Your task to perform on an android device: Add usb-a to usb-b to the cart on ebay, then select checkout. Image 0: 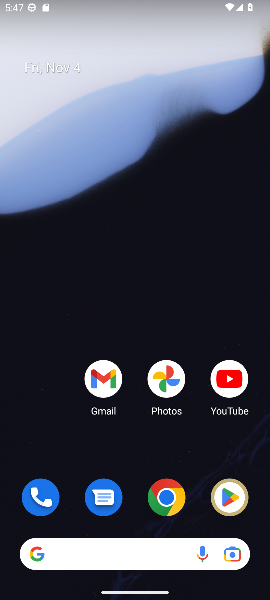
Step 0: click (164, 497)
Your task to perform on an android device: Add usb-a to usb-b to the cart on ebay, then select checkout. Image 1: 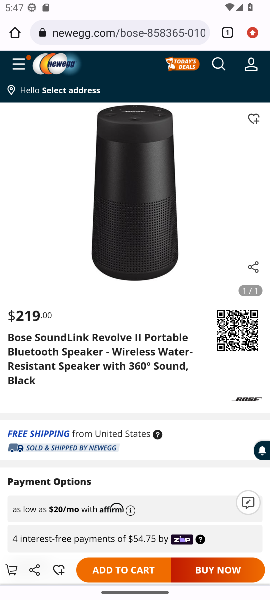
Step 1: click (91, 39)
Your task to perform on an android device: Add usb-a to usb-b to the cart on ebay, then select checkout. Image 2: 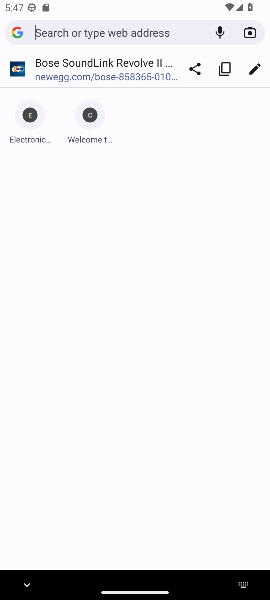
Step 2: type "ebay.com"
Your task to perform on an android device: Add usb-a to usb-b to the cart on ebay, then select checkout. Image 3: 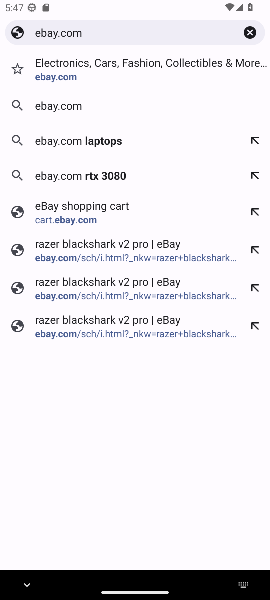
Step 3: click (50, 78)
Your task to perform on an android device: Add usb-a to usb-b to the cart on ebay, then select checkout. Image 4: 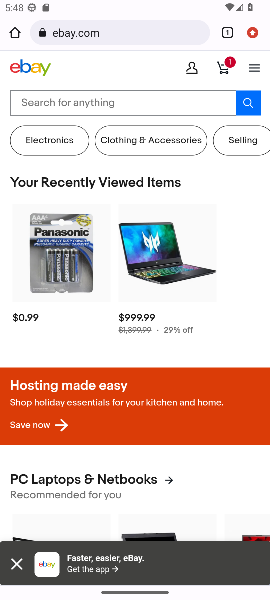
Step 4: click (54, 105)
Your task to perform on an android device: Add usb-a to usb-b to the cart on ebay, then select checkout. Image 5: 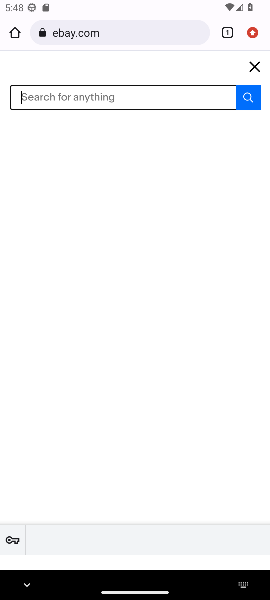
Step 5: type "bose soundlink mini"
Your task to perform on an android device: Add usb-a to usb-b to the cart on ebay, then select checkout. Image 6: 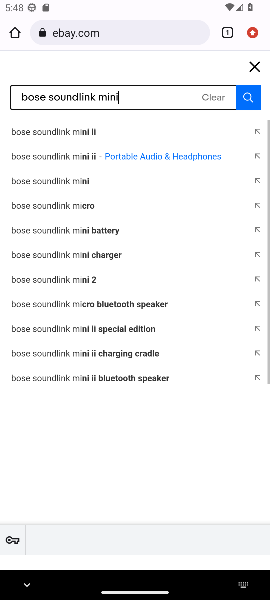
Step 6: click (212, 96)
Your task to perform on an android device: Add usb-a to usb-b to the cart on ebay, then select checkout. Image 7: 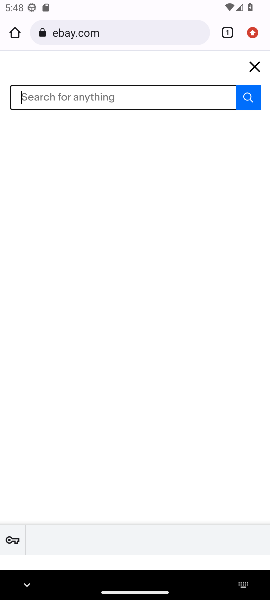
Step 7: click (68, 87)
Your task to perform on an android device: Add usb-a to usb-b to the cart on ebay, then select checkout. Image 8: 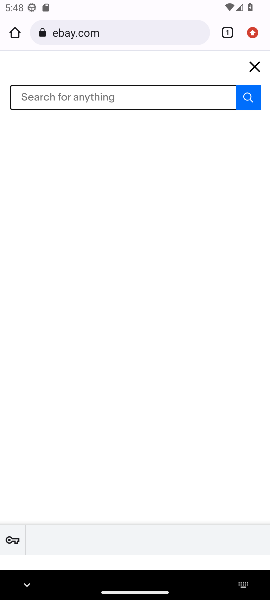
Step 8: type " usb-a to usb-b "
Your task to perform on an android device: Add usb-a to usb-b to the cart on ebay, then select checkout. Image 9: 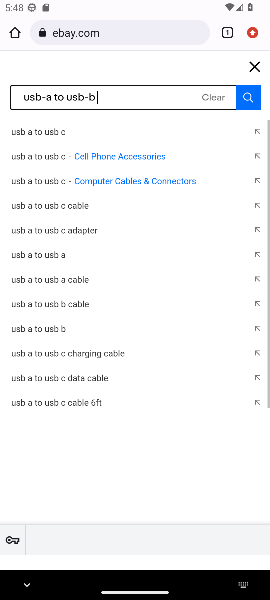
Step 9: click (251, 98)
Your task to perform on an android device: Add usb-a to usb-b to the cart on ebay, then select checkout. Image 10: 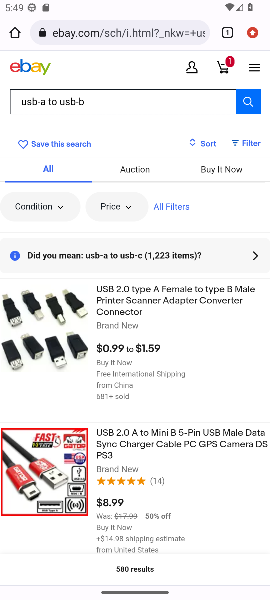
Step 10: click (81, 345)
Your task to perform on an android device: Add usb-a to usb-b to the cart on ebay, then select checkout. Image 11: 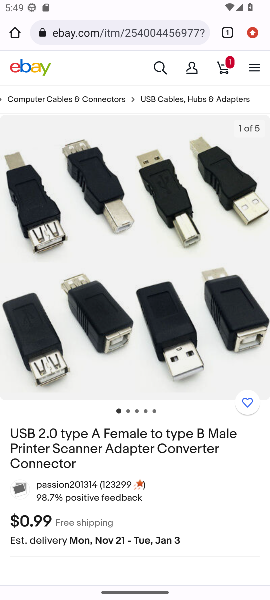
Step 11: drag from (113, 444) to (114, 220)
Your task to perform on an android device: Add usb-a to usb-b to the cart on ebay, then select checkout. Image 12: 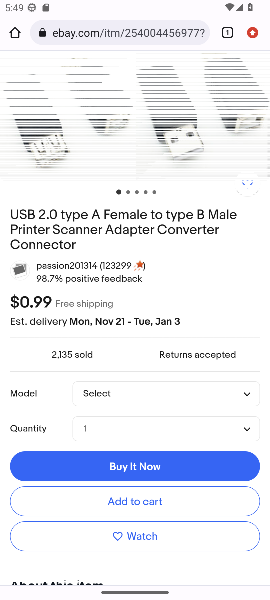
Step 12: click (126, 499)
Your task to perform on an android device: Add usb-a to usb-b to the cart on ebay, then select checkout. Image 13: 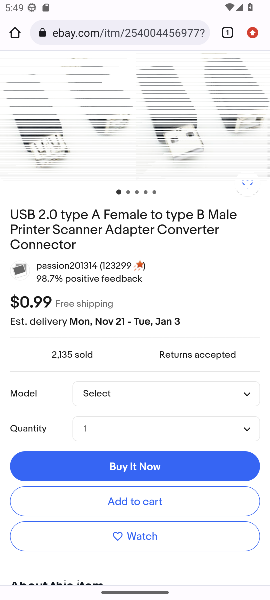
Step 13: click (128, 503)
Your task to perform on an android device: Add usb-a to usb-b to the cart on ebay, then select checkout. Image 14: 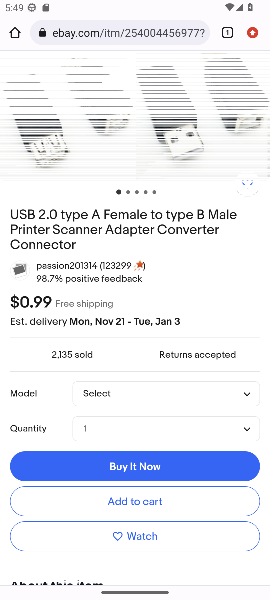
Step 14: click (132, 503)
Your task to perform on an android device: Add usb-a to usb-b to the cart on ebay, then select checkout. Image 15: 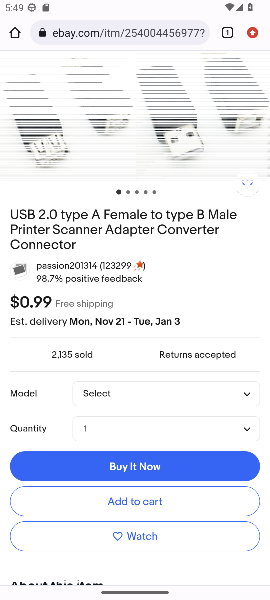
Step 15: drag from (173, 257) to (228, 83)
Your task to perform on an android device: Add usb-a to usb-b to the cart on ebay, then select checkout. Image 16: 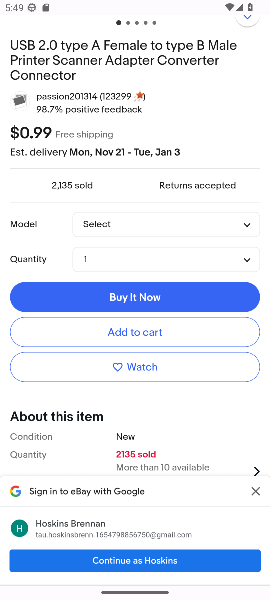
Step 16: click (107, 333)
Your task to perform on an android device: Add usb-a to usb-b to the cart on ebay, then select checkout. Image 17: 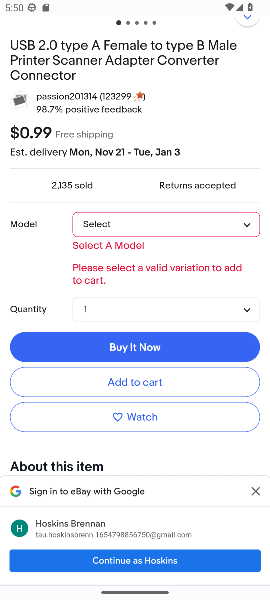
Step 17: click (243, 227)
Your task to perform on an android device: Add usb-a to usb-b to the cart on ebay, then select checkout. Image 18: 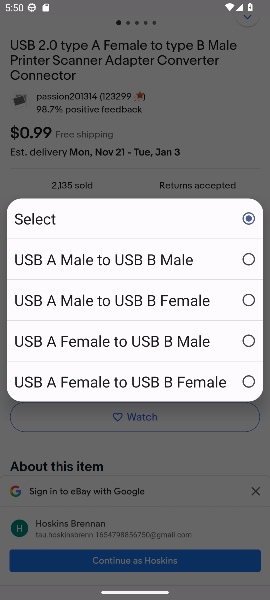
Step 18: click (87, 265)
Your task to perform on an android device: Add usb-a to usb-b to the cart on ebay, then select checkout. Image 19: 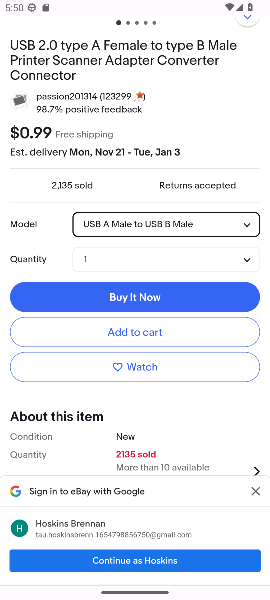
Step 19: click (110, 334)
Your task to perform on an android device: Add usb-a to usb-b to the cart on ebay, then select checkout. Image 20: 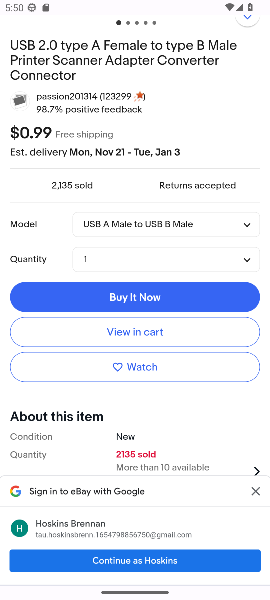
Step 20: click (111, 333)
Your task to perform on an android device: Add usb-a to usb-b to the cart on ebay, then select checkout. Image 21: 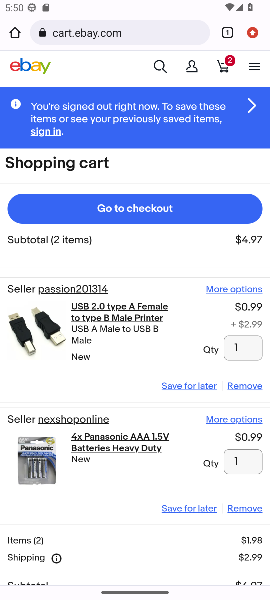
Step 21: click (156, 215)
Your task to perform on an android device: Add usb-a to usb-b to the cart on ebay, then select checkout. Image 22: 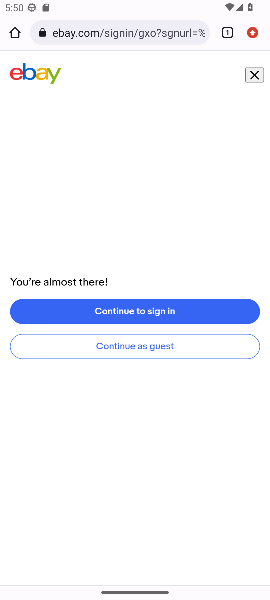
Step 22: task complete